Your task to perform on an android device: move an email to a new category in the gmail app Image 0: 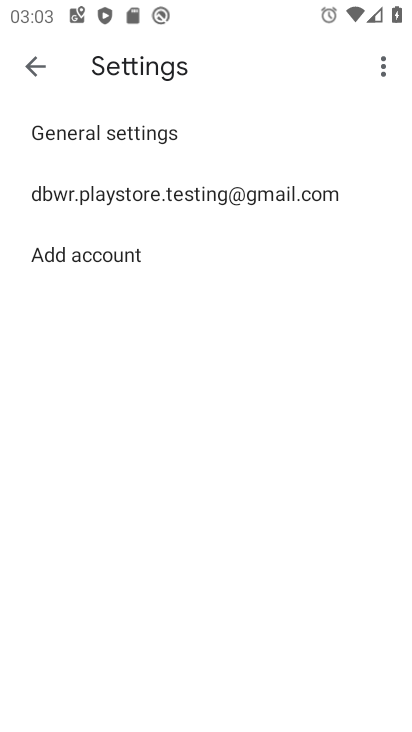
Step 0: press home button
Your task to perform on an android device: move an email to a new category in the gmail app Image 1: 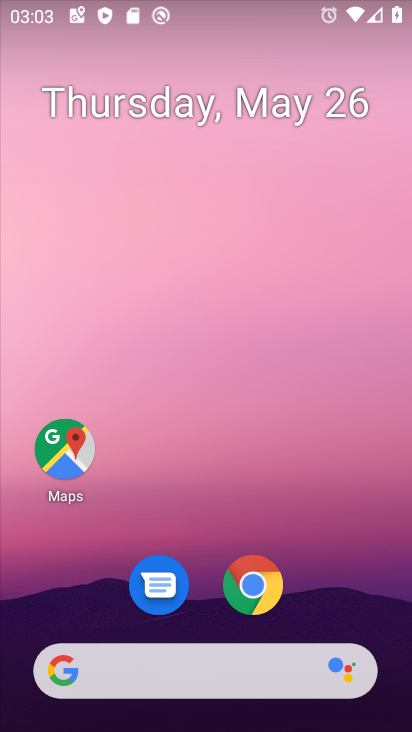
Step 1: drag from (319, 576) to (332, 61)
Your task to perform on an android device: move an email to a new category in the gmail app Image 2: 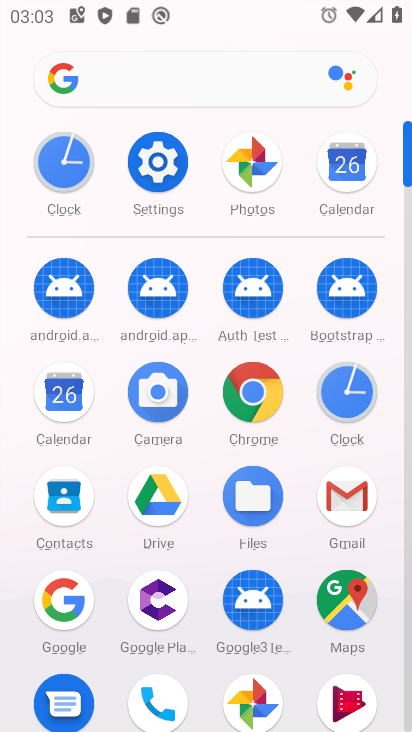
Step 2: click (335, 481)
Your task to perform on an android device: move an email to a new category in the gmail app Image 3: 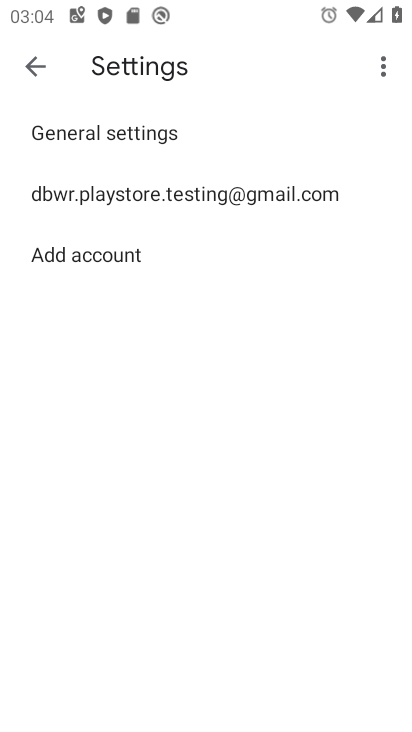
Step 3: click (37, 58)
Your task to perform on an android device: move an email to a new category in the gmail app Image 4: 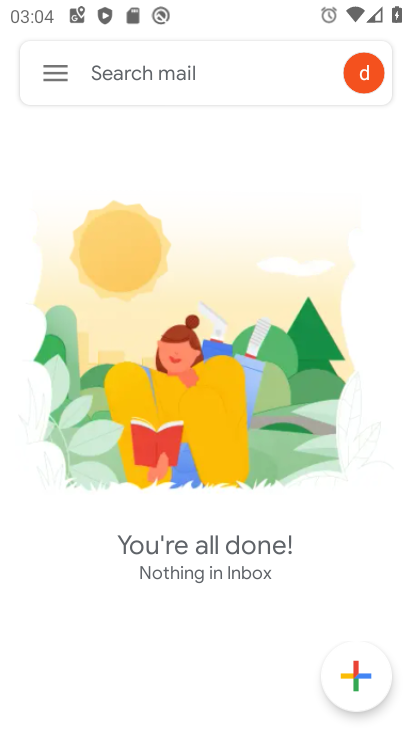
Step 4: click (54, 70)
Your task to perform on an android device: move an email to a new category in the gmail app Image 5: 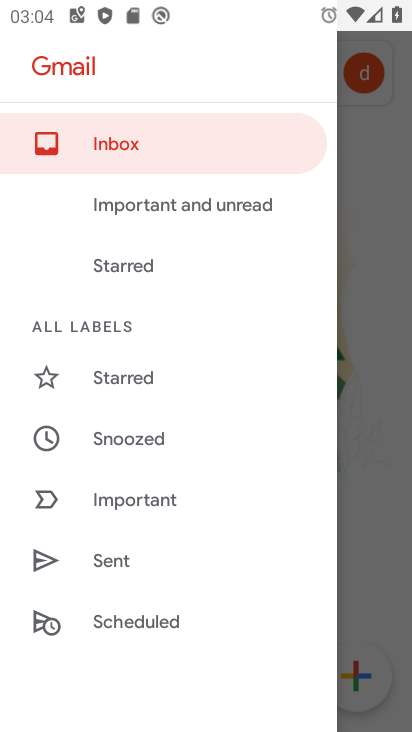
Step 5: drag from (143, 548) to (197, 146)
Your task to perform on an android device: move an email to a new category in the gmail app Image 6: 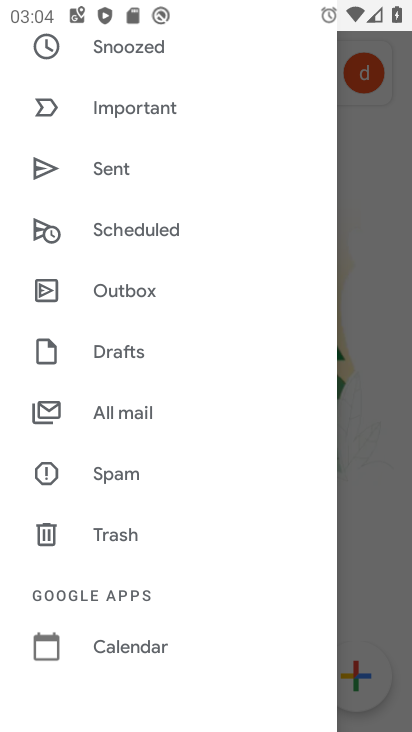
Step 6: click (146, 414)
Your task to perform on an android device: move an email to a new category in the gmail app Image 7: 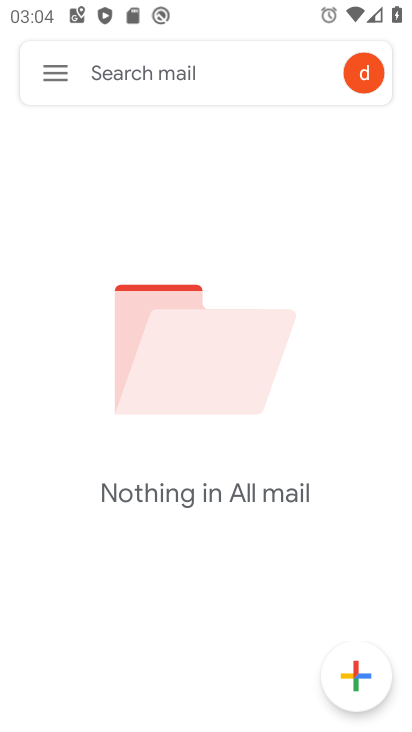
Step 7: task complete